Your task to perform on an android device: Open the web browser Image 0: 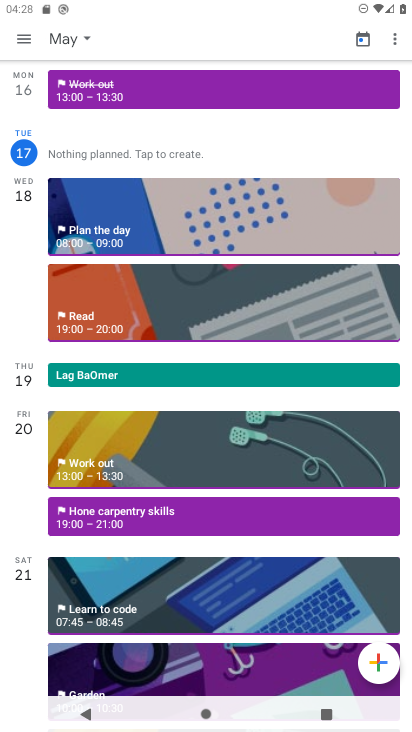
Step 0: press home button
Your task to perform on an android device: Open the web browser Image 1: 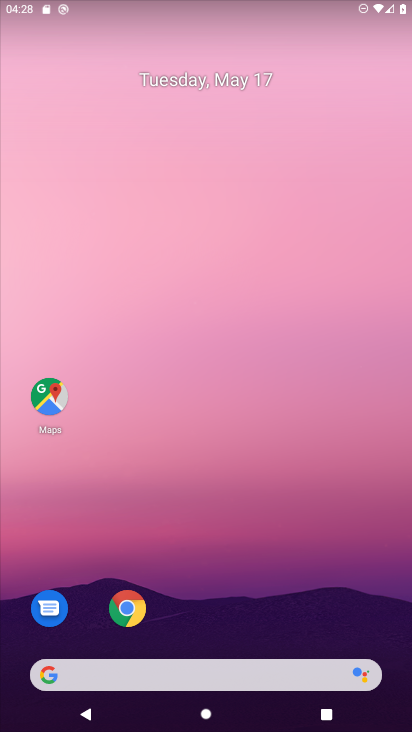
Step 1: click (128, 611)
Your task to perform on an android device: Open the web browser Image 2: 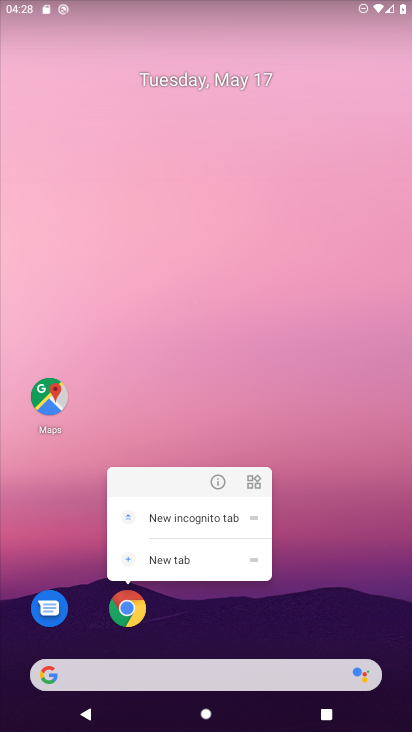
Step 2: click (128, 611)
Your task to perform on an android device: Open the web browser Image 3: 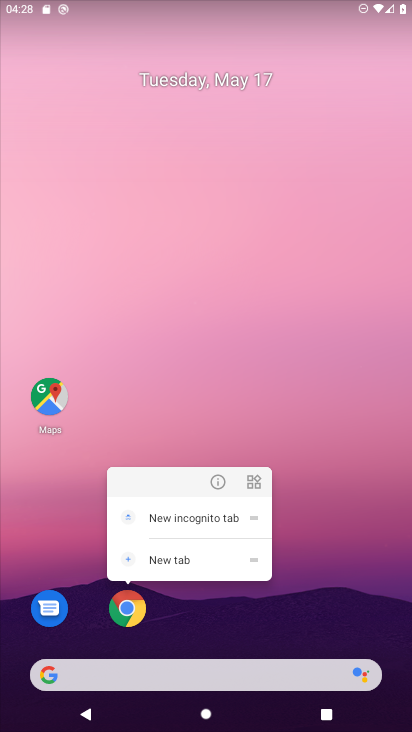
Step 3: click (116, 596)
Your task to perform on an android device: Open the web browser Image 4: 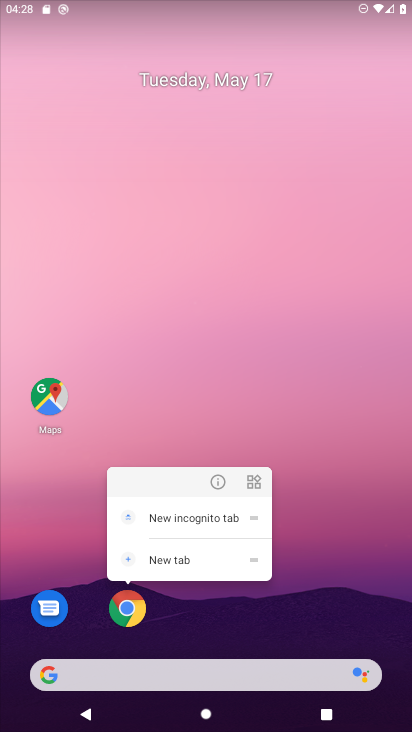
Step 4: click (124, 609)
Your task to perform on an android device: Open the web browser Image 5: 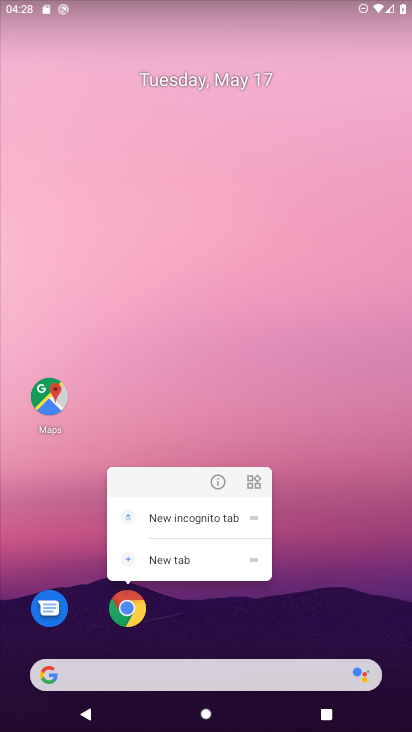
Step 5: click (131, 626)
Your task to perform on an android device: Open the web browser Image 6: 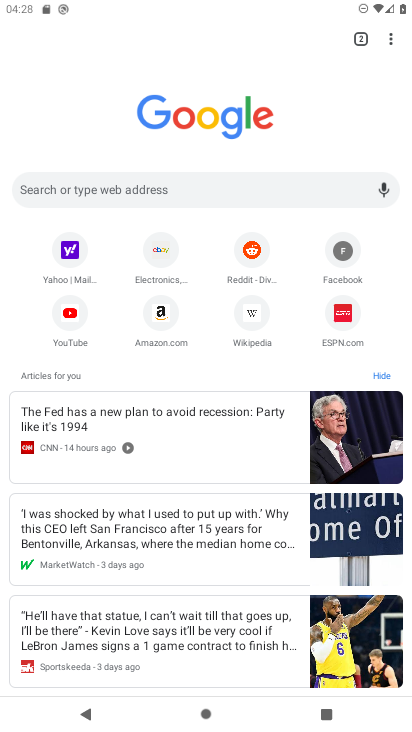
Step 6: task complete